Your task to perform on an android device: change timer sound Image 0: 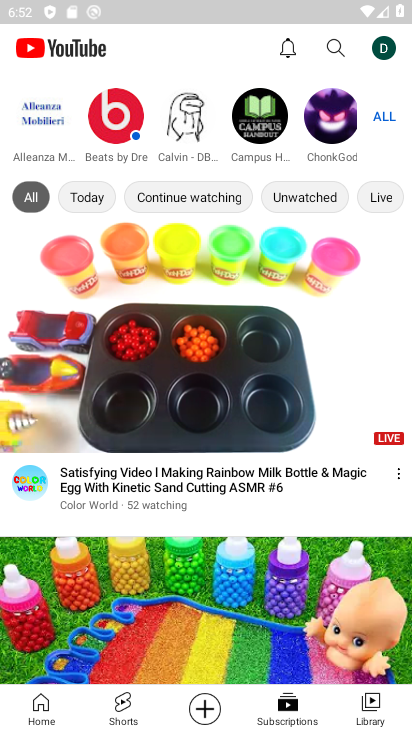
Step 0: press home button
Your task to perform on an android device: change timer sound Image 1: 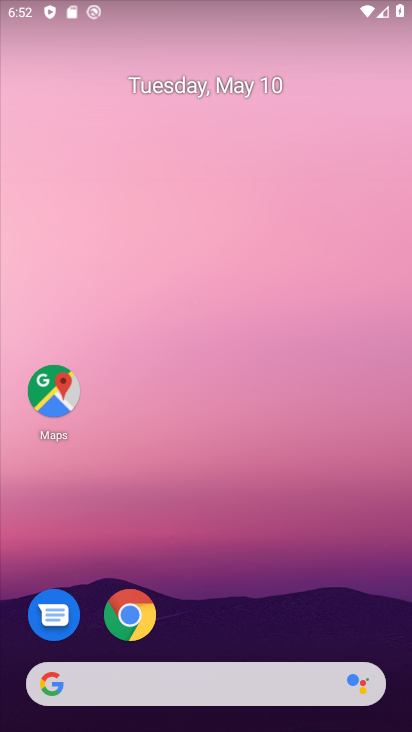
Step 1: drag from (230, 586) to (185, 200)
Your task to perform on an android device: change timer sound Image 2: 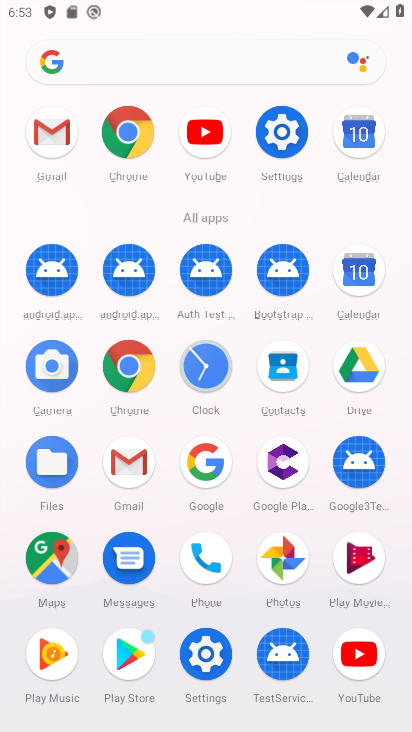
Step 2: click (213, 369)
Your task to perform on an android device: change timer sound Image 3: 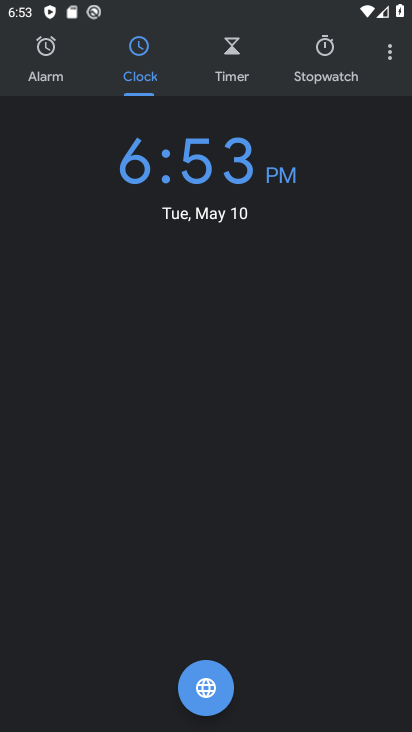
Step 3: click (390, 53)
Your task to perform on an android device: change timer sound Image 4: 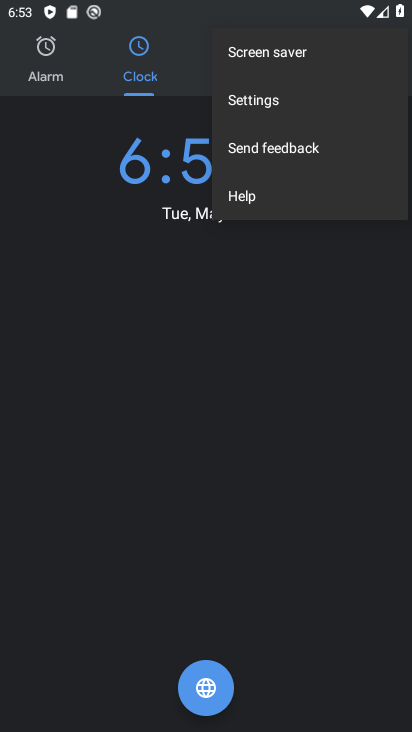
Step 4: click (273, 105)
Your task to perform on an android device: change timer sound Image 5: 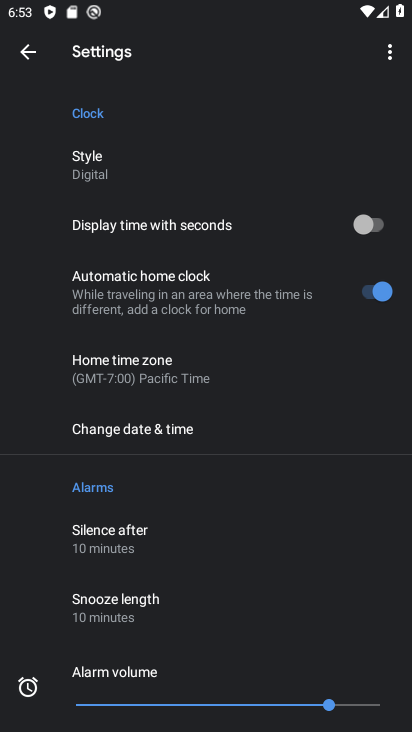
Step 5: drag from (247, 509) to (192, 259)
Your task to perform on an android device: change timer sound Image 6: 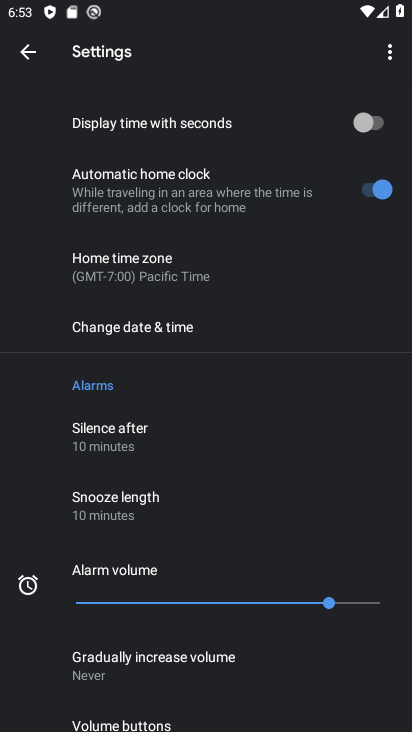
Step 6: drag from (191, 515) to (142, 183)
Your task to perform on an android device: change timer sound Image 7: 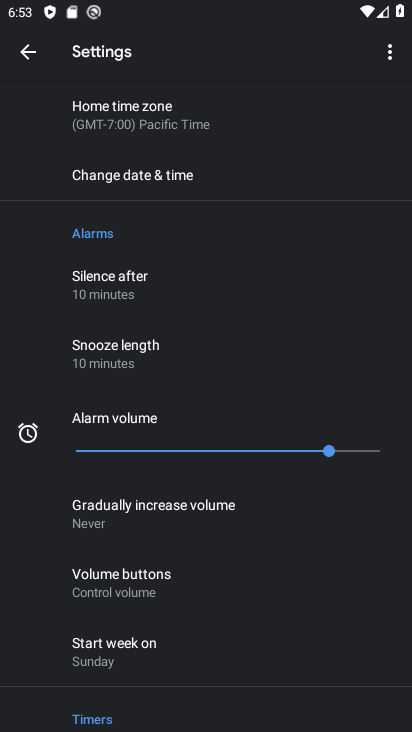
Step 7: drag from (175, 620) to (128, 302)
Your task to perform on an android device: change timer sound Image 8: 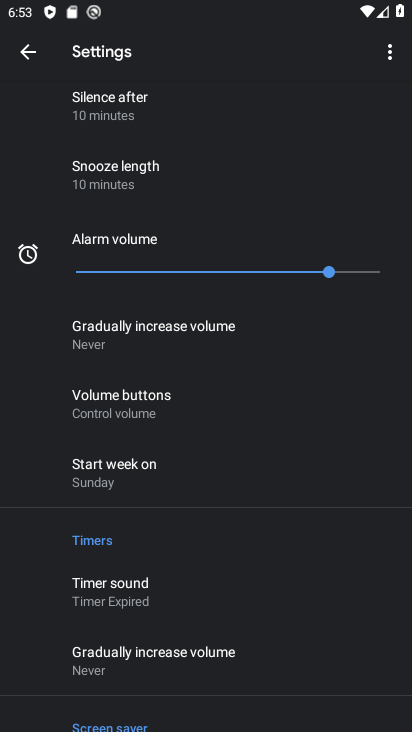
Step 8: click (128, 590)
Your task to perform on an android device: change timer sound Image 9: 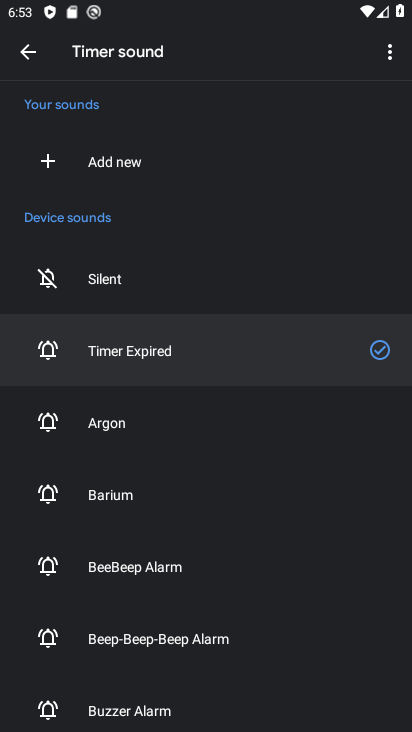
Step 9: click (91, 423)
Your task to perform on an android device: change timer sound Image 10: 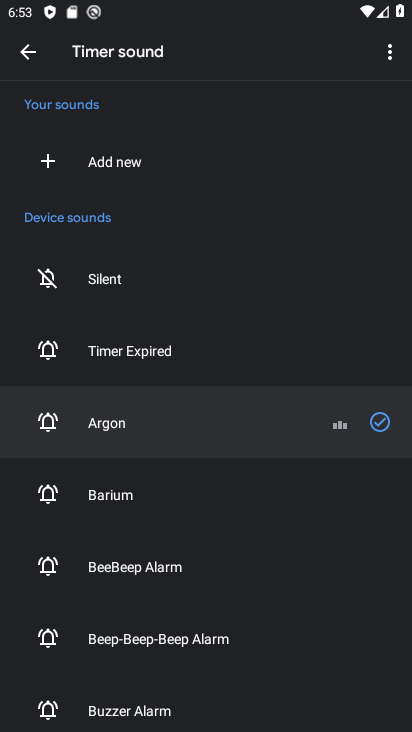
Step 10: task complete